Your task to perform on an android device: delete a single message in the gmail app Image 0: 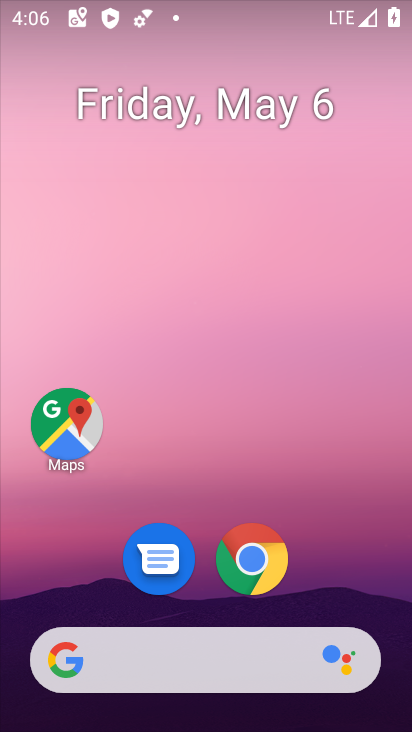
Step 0: drag from (198, 626) to (222, 226)
Your task to perform on an android device: delete a single message in the gmail app Image 1: 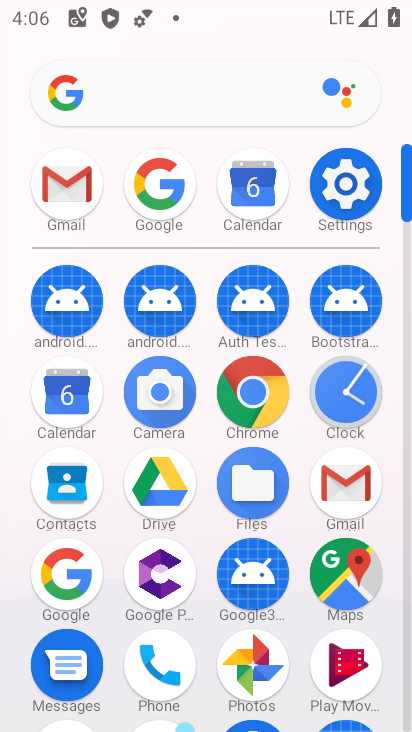
Step 1: click (58, 190)
Your task to perform on an android device: delete a single message in the gmail app Image 2: 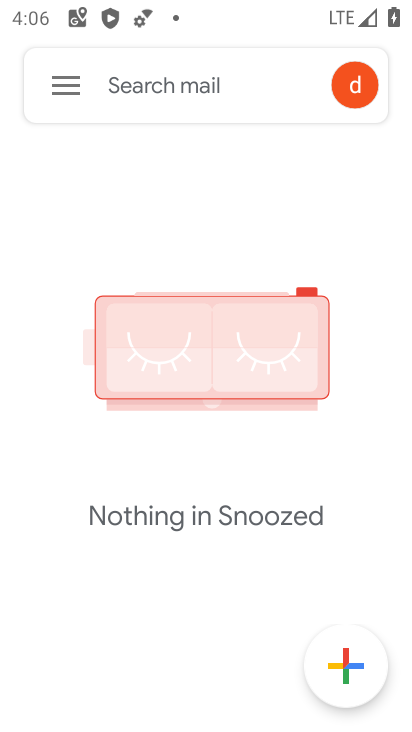
Step 2: click (58, 90)
Your task to perform on an android device: delete a single message in the gmail app Image 3: 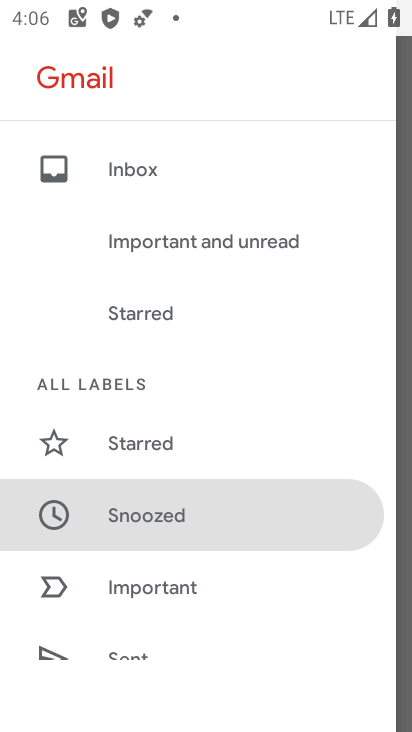
Step 3: click (145, 170)
Your task to perform on an android device: delete a single message in the gmail app Image 4: 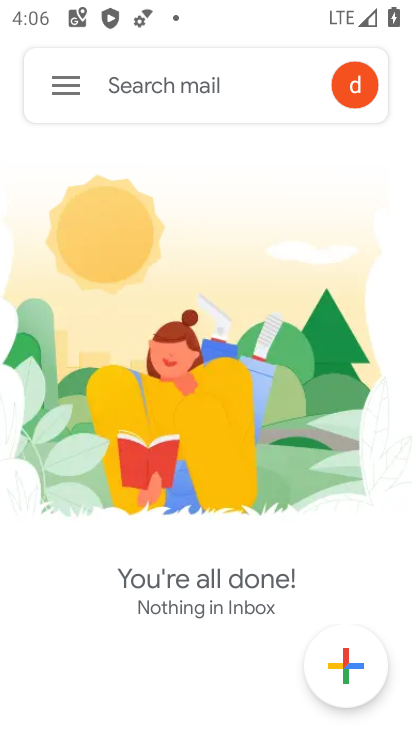
Step 4: task complete